Your task to perform on an android device: change the clock display to analog Image 0: 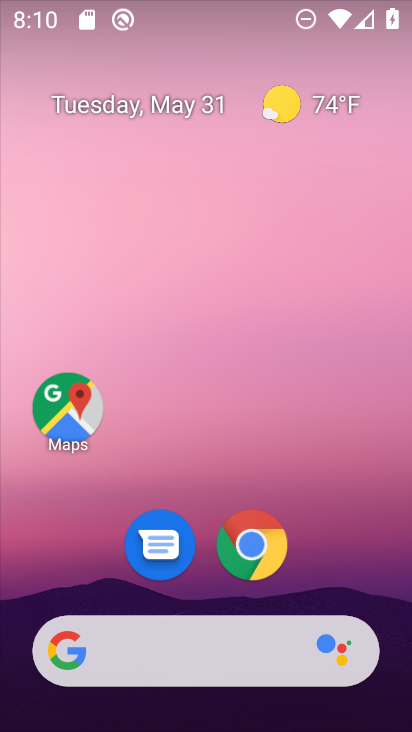
Step 0: drag from (329, 536) to (209, 31)
Your task to perform on an android device: change the clock display to analog Image 1: 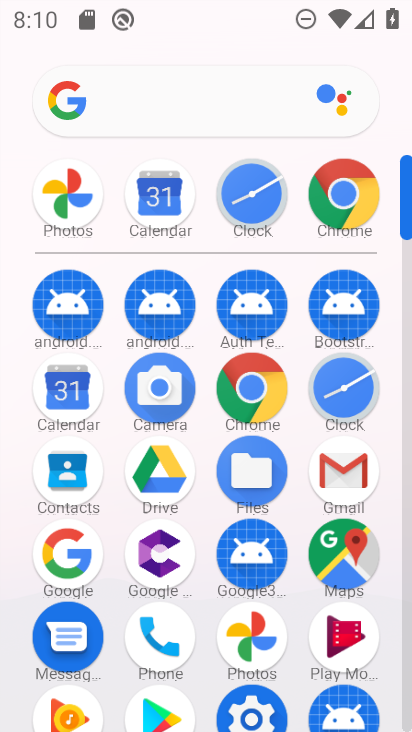
Step 1: drag from (17, 537) to (24, 218)
Your task to perform on an android device: change the clock display to analog Image 2: 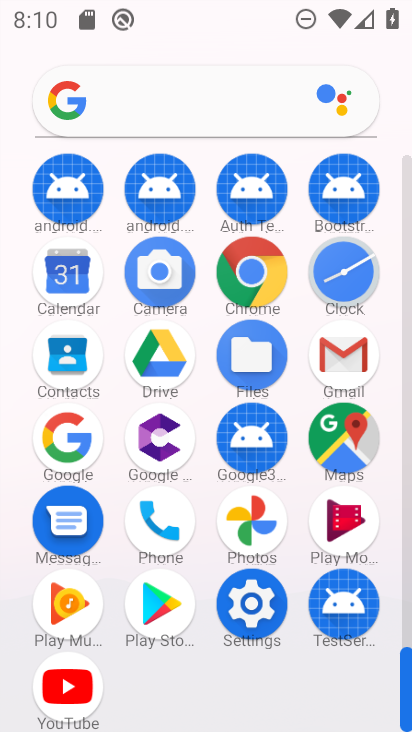
Step 2: click (343, 272)
Your task to perform on an android device: change the clock display to analog Image 3: 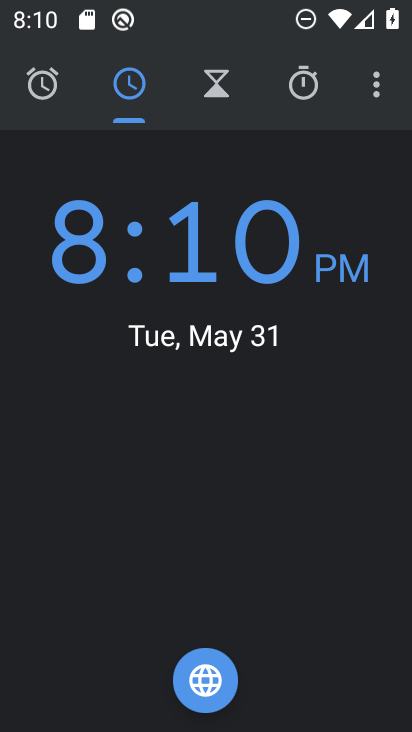
Step 3: drag from (377, 72) to (309, 160)
Your task to perform on an android device: change the clock display to analog Image 4: 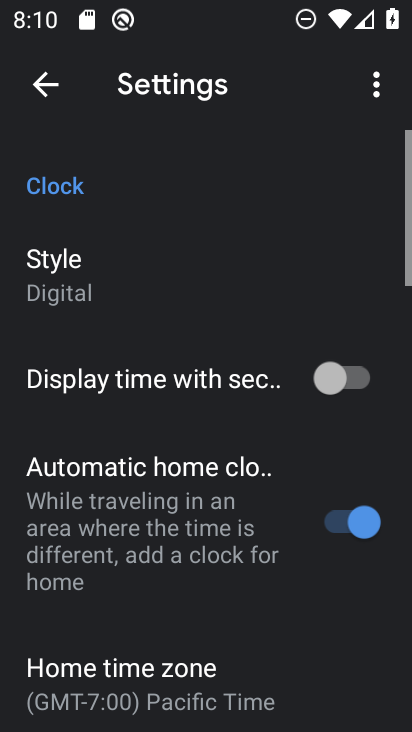
Step 4: click (126, 267)
Your task to perform on an android device: change the clock display to analog Image 5: 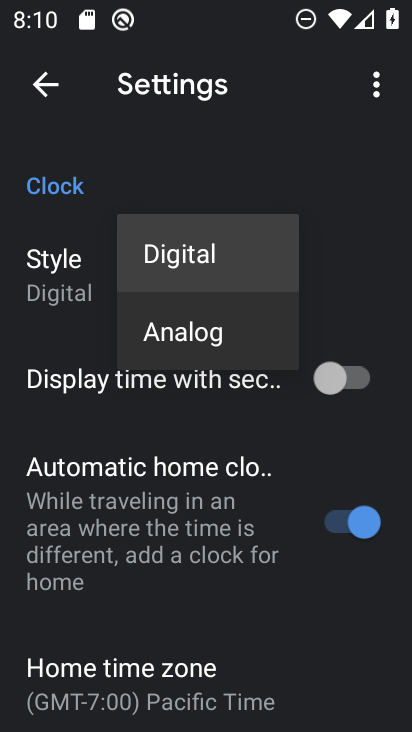
Step 5: click (164, 340)
Your task to perform on an android device: change the clock display to analog Image 6: 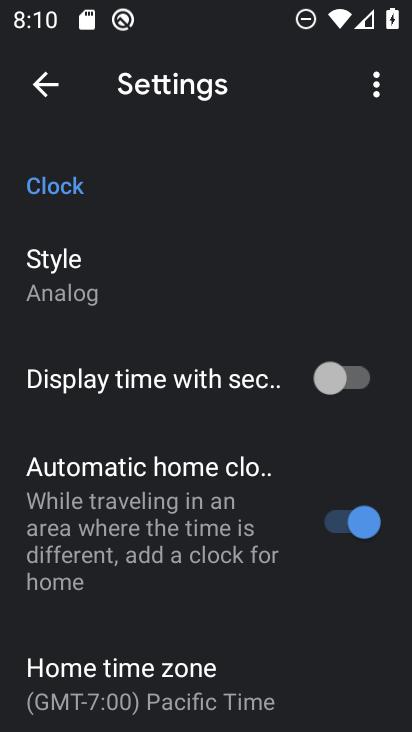
Step 6: task complete